Your task to perform on an android device: Google the capital of Argentina Image 0: 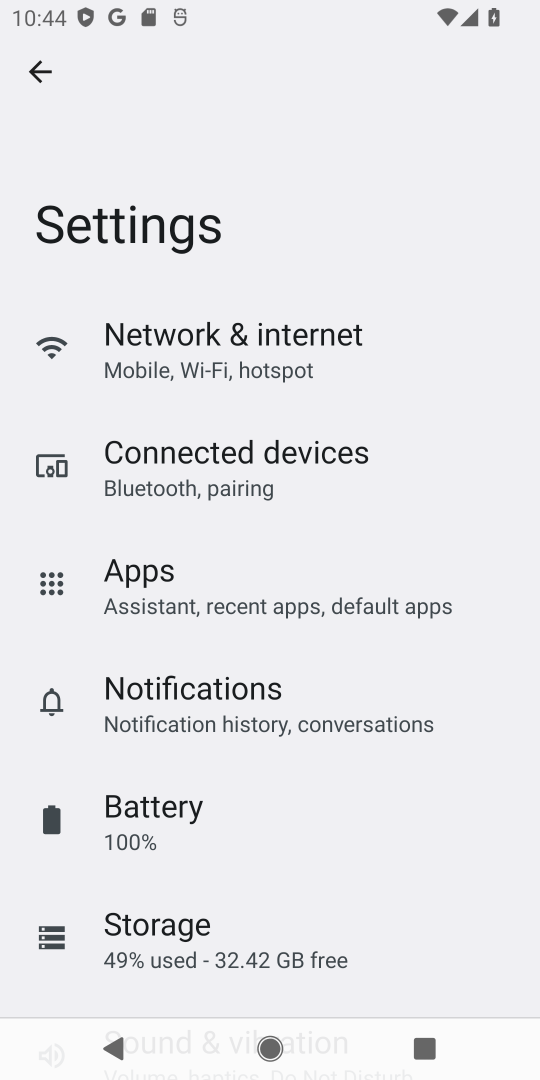
Step 0: press home button
Your task to perform on an android device: Google the capital of Argentina Image 1: 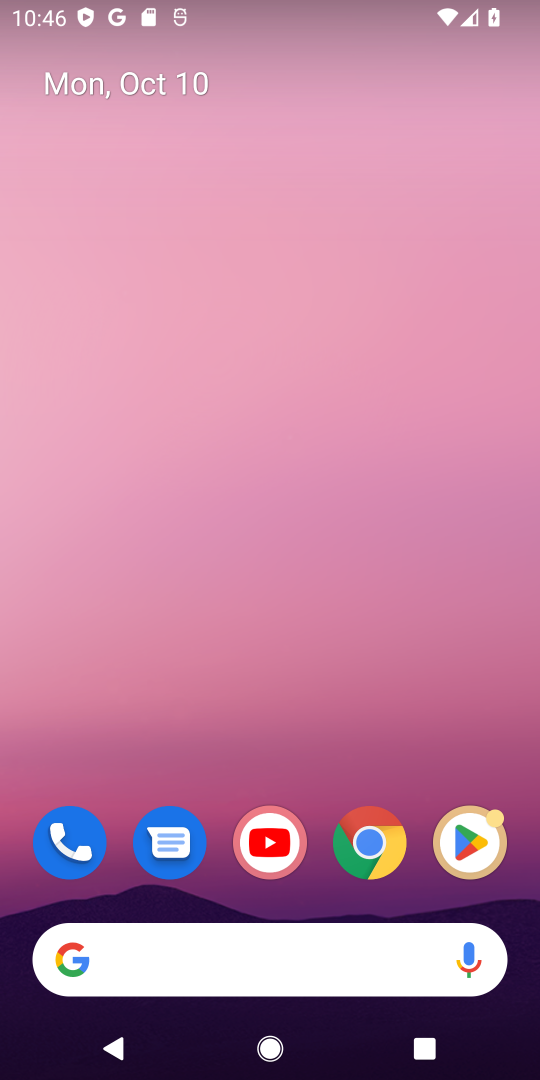
Step 1: click (227, 969)
Your task to perform on an android device: Google the capital of Argentina Image 2: 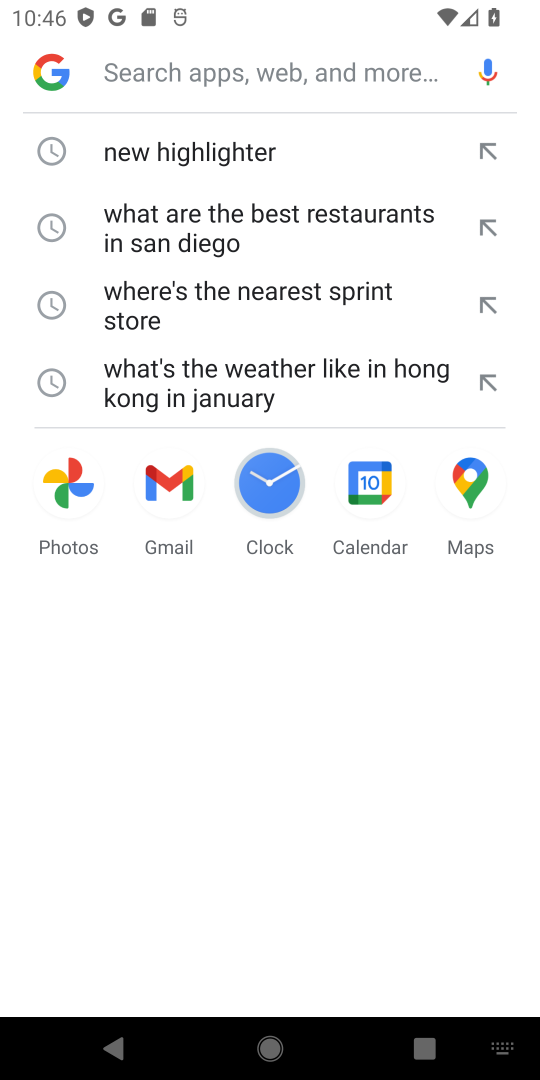
Step 2: click (208, 61)
Your task to perform on an android device: Google the capital of Argentina Image 3: 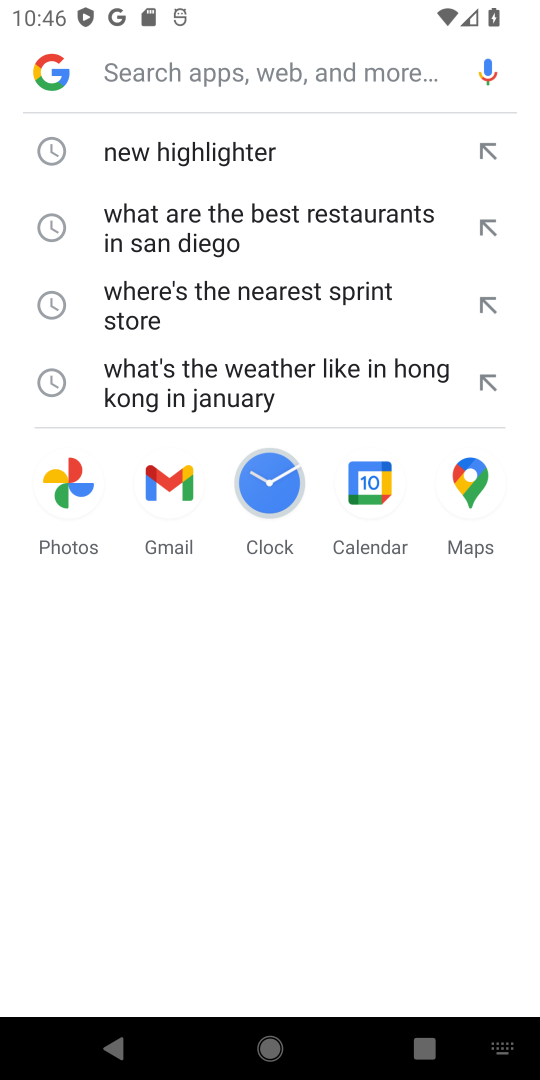
Step 3: type " capital of Argentina"
Your task to perform on an android device: Google the capital of Argentina Image 4: 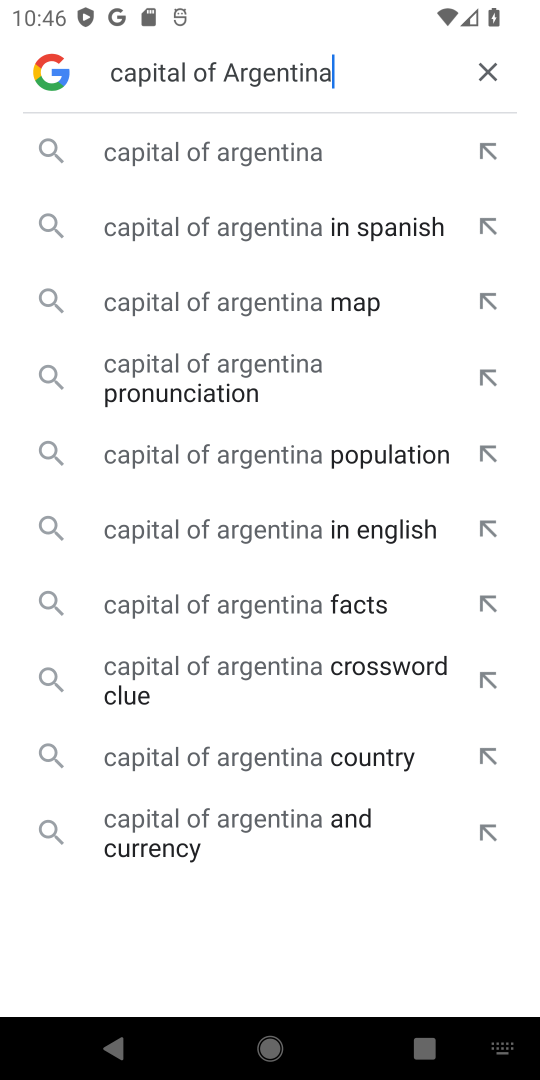
Step 4: click (201, 149)
Your task to perform on an android device: Google the capital of Argentina Image 5: 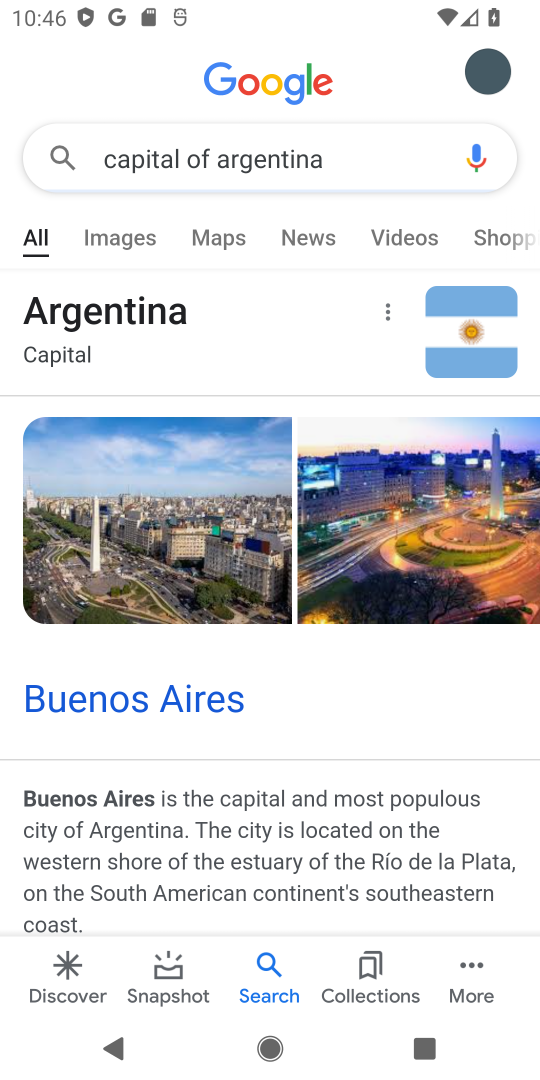
Step 5: task complete